Your task to perform on an android device: What's on my calendar today? Image 0: 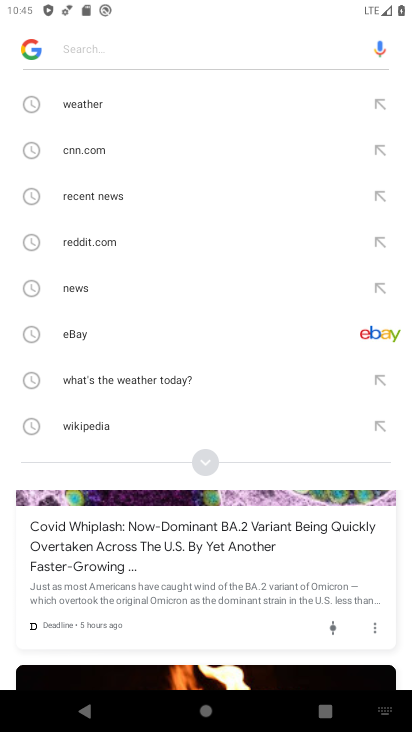
Step 0: press home button
Your task to perform on an android device: What's on my calendar today? Image 1: 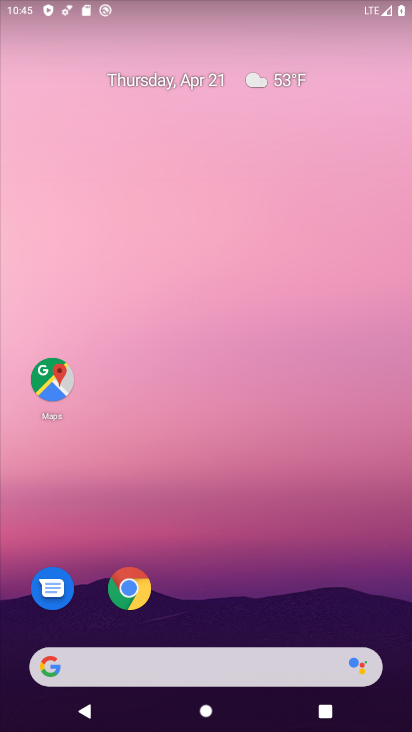
Step 1: drag from (214, 647) to (169, 287)
Your task to perform on an android device: What's on my calendar today? Image 2: 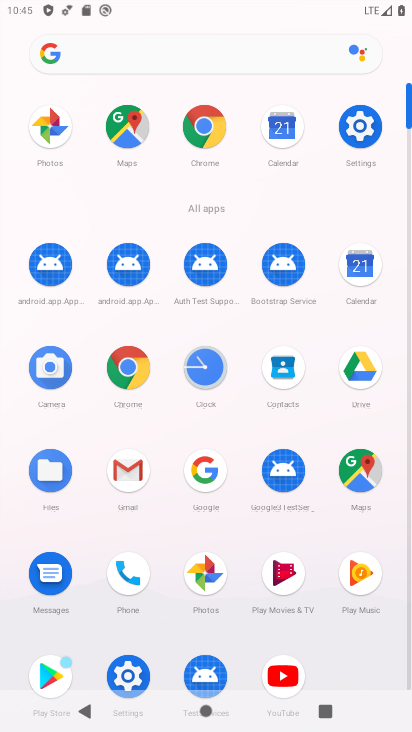
Step 2: click (358, 267)
Your task to perform on an android device: What's on my calendar today? Image 3: 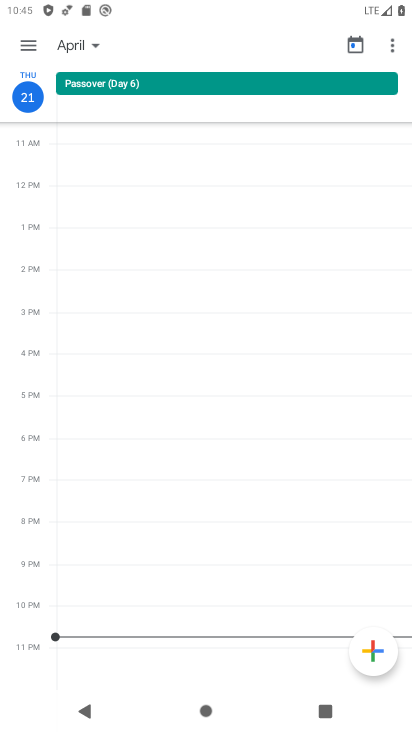
Step 3: click (61, 41)
Your task to perform on an android device: What's on my calendar today? Image 4: 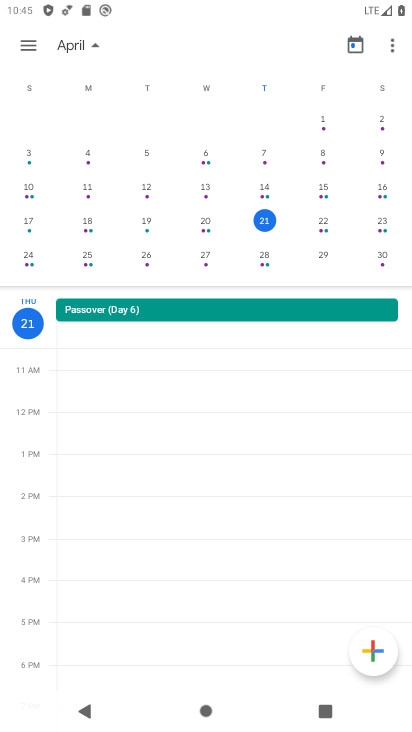
Step 4: task complete